Your task to perform on an android device: see sites visited before in the chrome app Image 0: 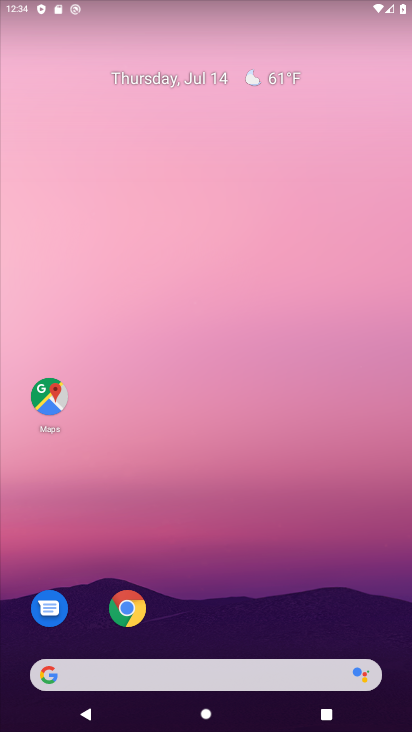
Step 0: drag from (362, 563) to (368, 96)
Your task to perform on an android device: see sites visited before in the chrome app Image 1: 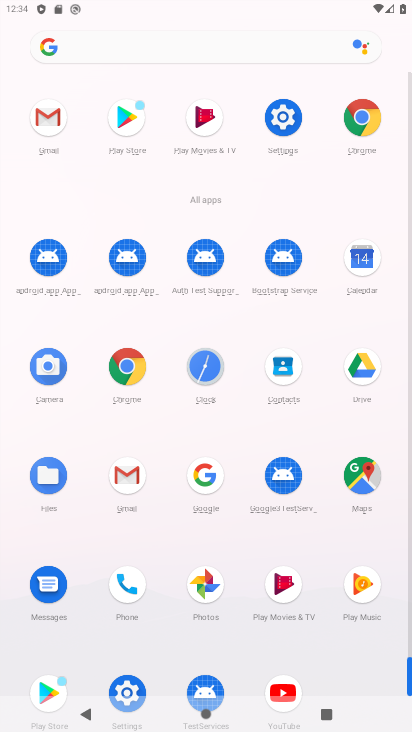
Step 1: click (130, 369)
Your task to perform on an android device: see sites visited before in the chrome app Image 2: 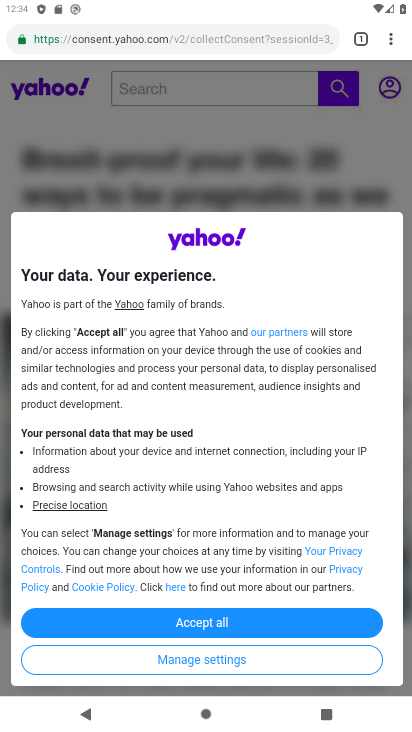
Step 2: click (391, 42)
Your task to perform on an android device: see sites visited before in the chrome app Image 3: 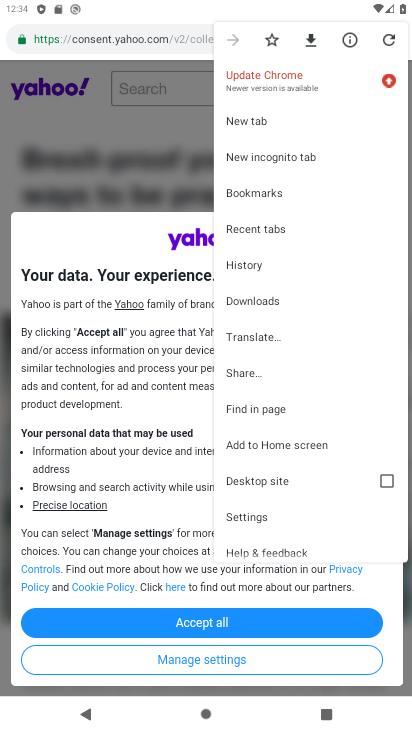
Step 3: drag from (347, 319) to (351, 253)
Your task to perform on an android device: see sites visited before in the chrome app Image 4: 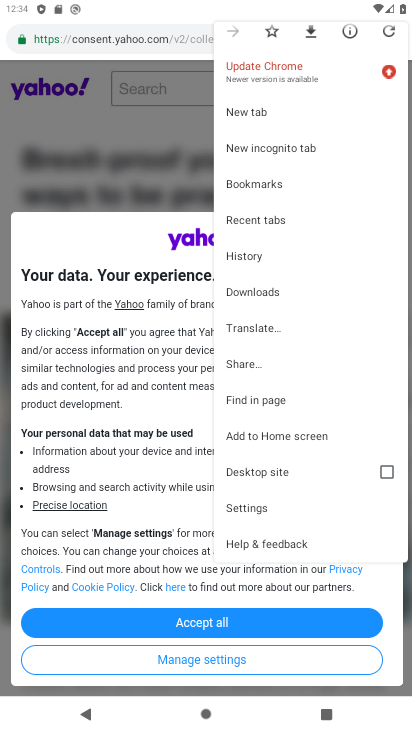
Step 4: click (275, 250)
Your task to perform on an android device: see sites visited before in the chrome app Image 5: 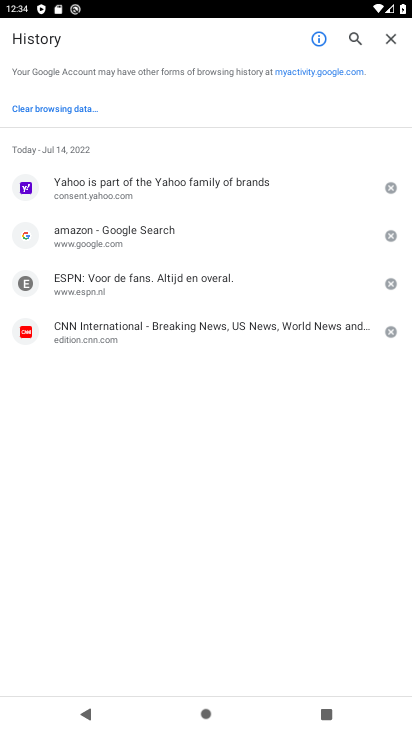
Step 5: task complete